Your task to perform on an android device: What is the news today? Image 0: 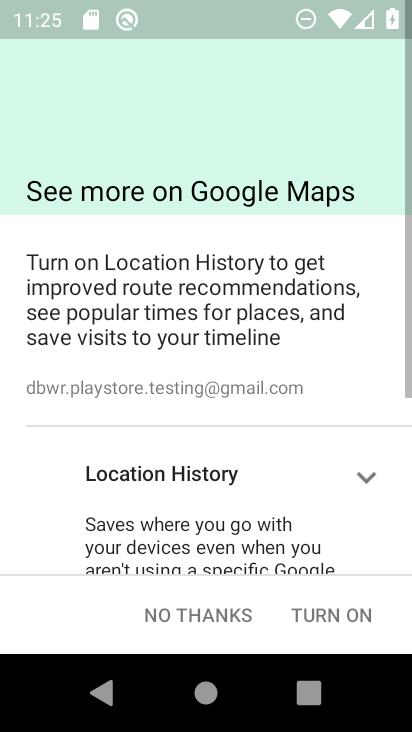
Step 0: press home button
Your task to perform on an android device: What is the news today? Image 1: 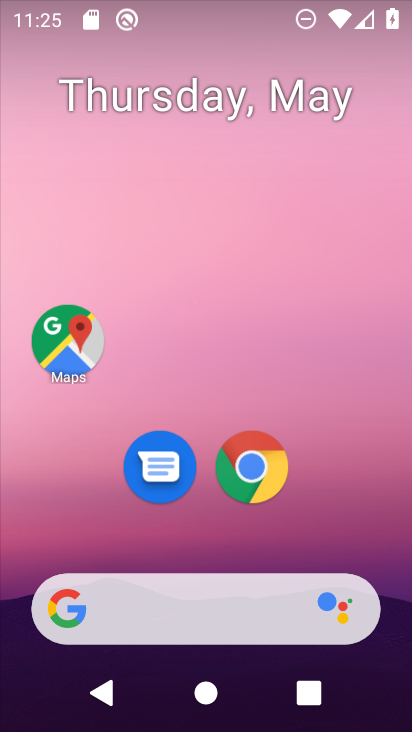
Step 1: drag from (183, 539) to (207, 207)
Your task to perform on an android device: What is the news today? Image 2: 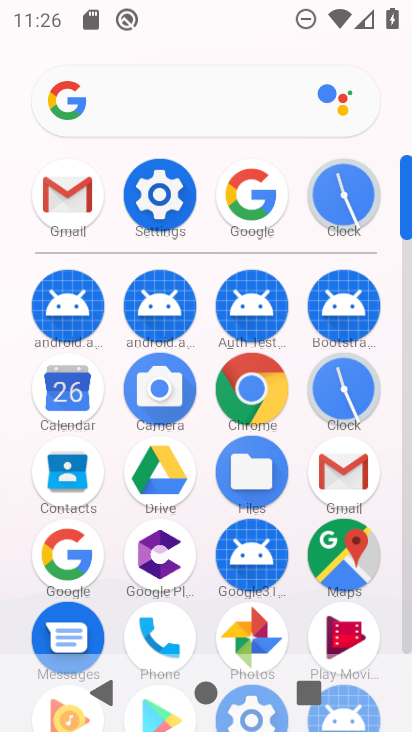
Step 2: drag from (199, 271) to (177, 141)
Your task to perform on an android device: What is the news today? Image 3: 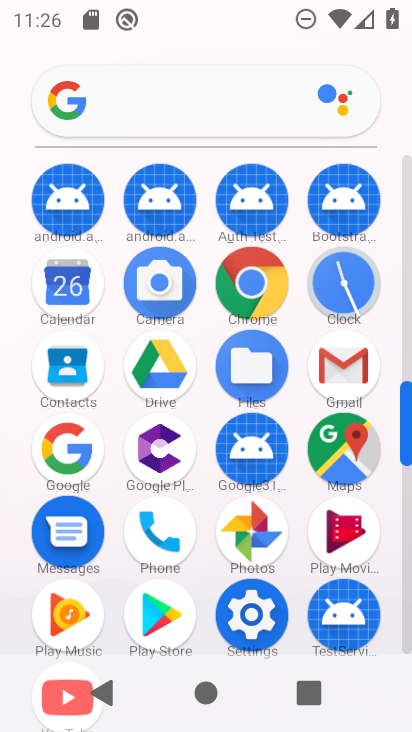
Step 3: click (81, 453)
Your task to perform on an android device: What is the news today? Image 4: 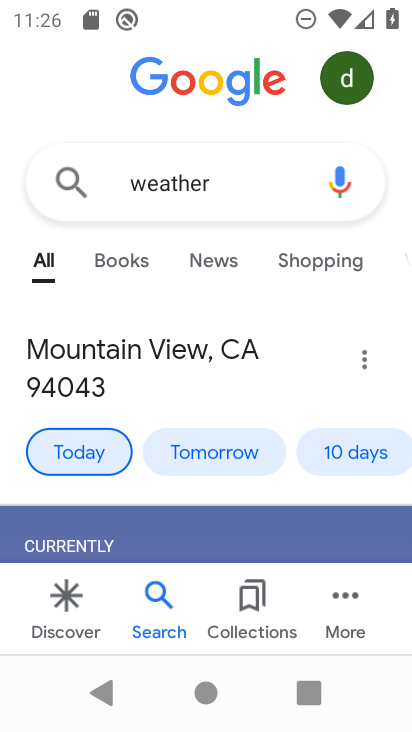
Step 4: click (353, 624)
Your task to perform on an android device: What is the news today? Image 5: 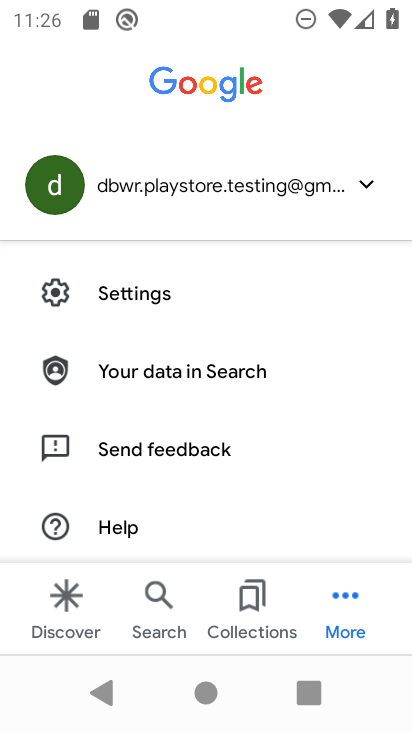
Step 5: click (48, 600)
Your task to perform on an android device: What is the news today? Image 6: 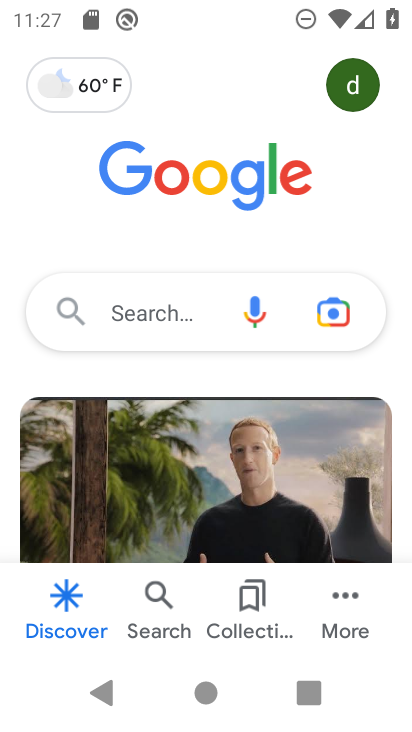
Step 6: task complete